Your task to perform on an android device: toggle data saver in the chrome app Image 0: 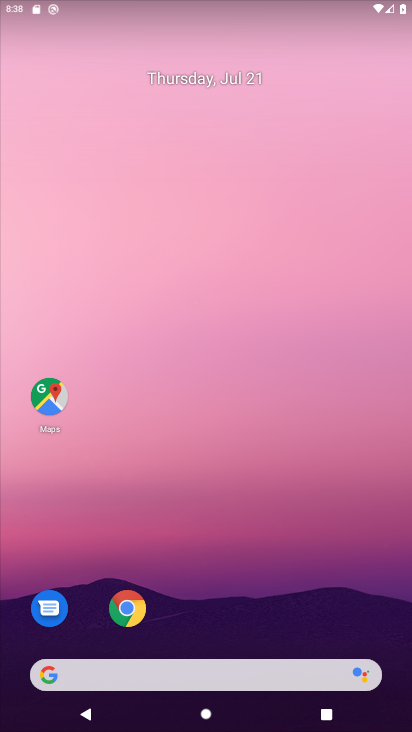
Step 0: click (125, 620)
Your task to perform on an android device: toggle data saver in the chrome app Image 1: 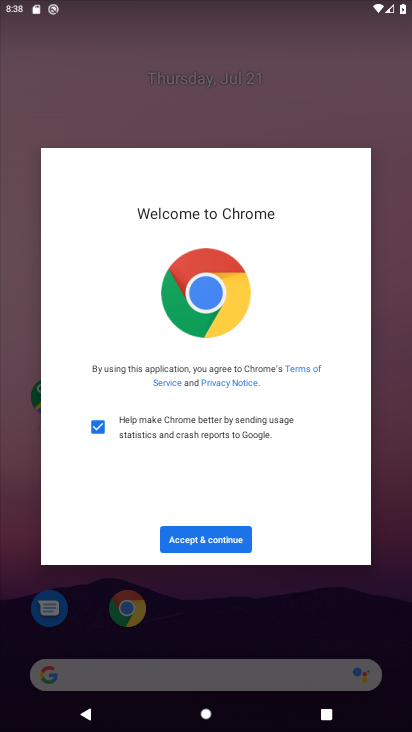
Step 1: click (196, 541)
Your task to perform on an android device: toggle data saver in the chrome app Image 2: 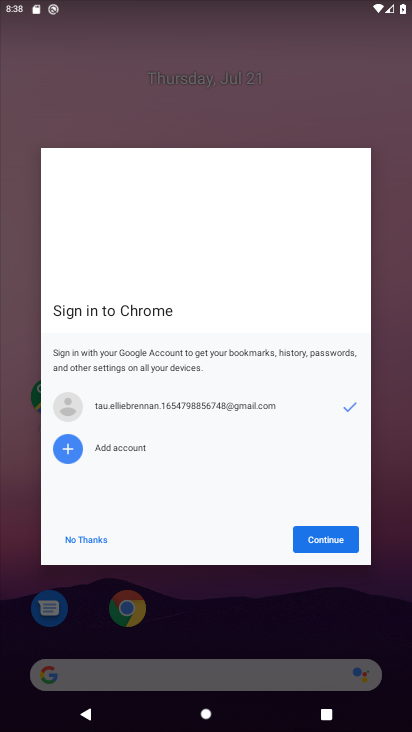
Step 2: click (320, 545)
Your task to perform on an android device: toggle data saver in the chrome app Image 3: 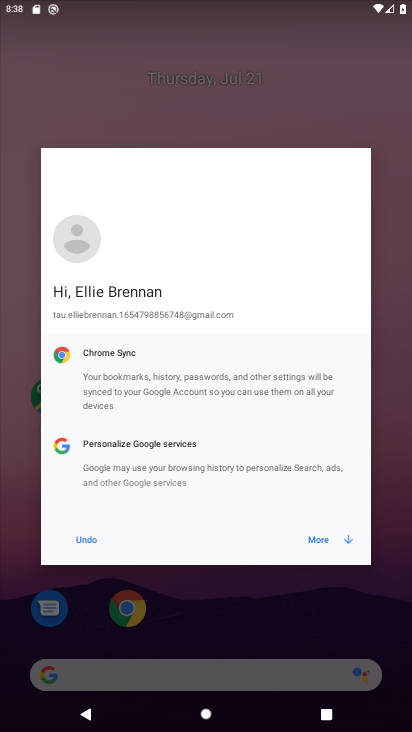
Step 3: click (313, 548)
Your task to perform on an android device: toggle data saver in the chrome app Image 4: 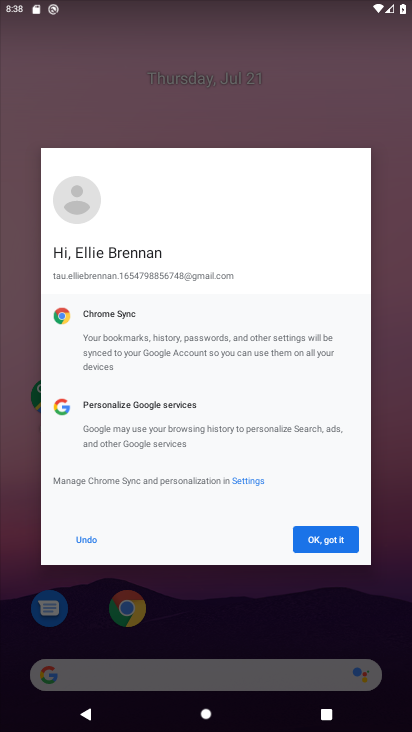
Step 4: click (313, 548)
Your task to perform on an android device: toggle data saver in the chrome app Image 5: 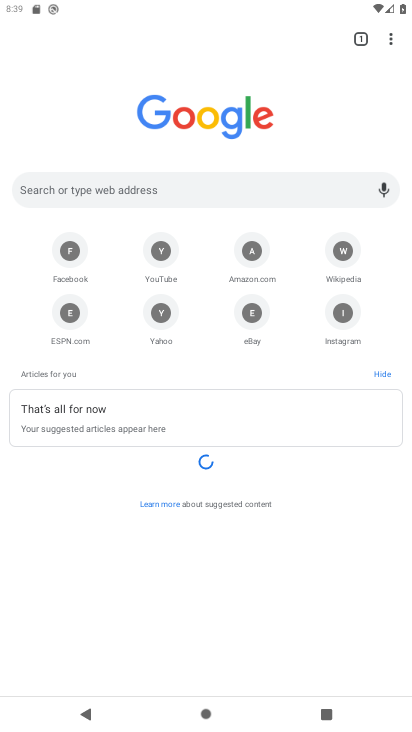
Step 5: click (387, 36)
Your task to perform on an android device: toggle data saver in the chrome app Image 6: 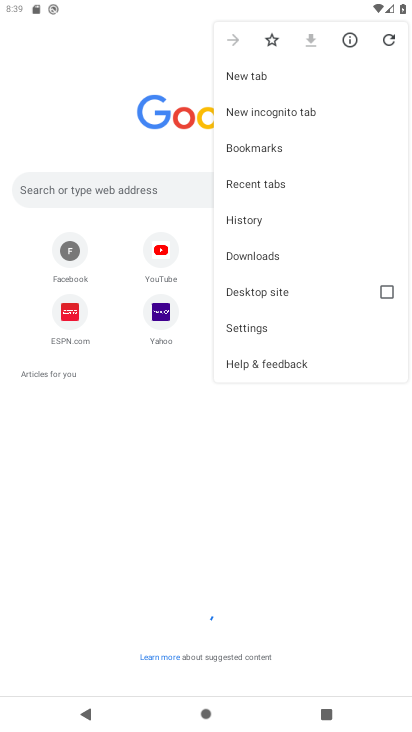
Step 6: click (239, 327)
Your task to perform on an android device: toggle data saver in the chrome app Image 7: 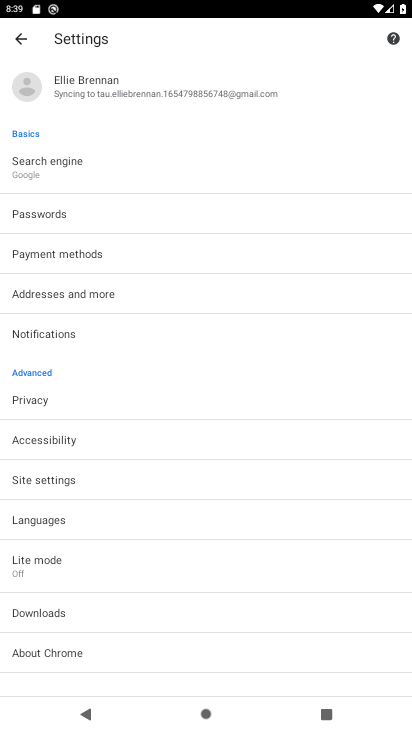
Step 7: click (40, 561)
Your task to perform on an android device: toggle data saver in the chrome app Image 8: 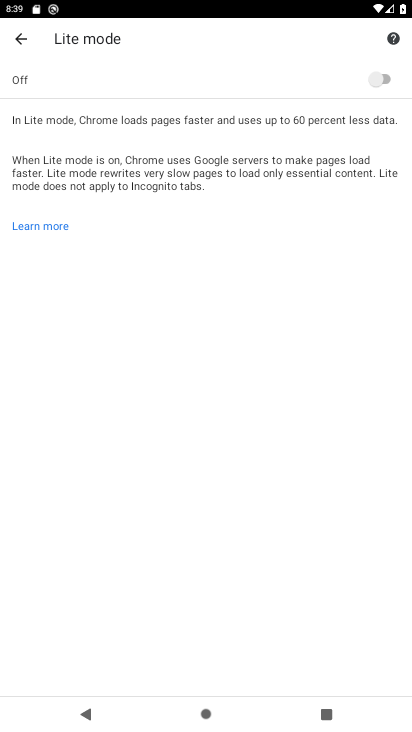
Step 8: click (380, 78)
Your task to perform on an android device: toggle data saver in the chrome app Image 9: 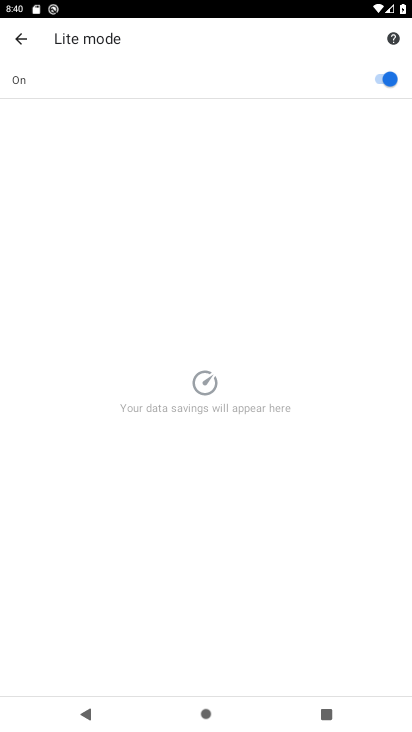
Step 9: task complete